Your task to perform on an android device: turn off translation in the chrome app Image 0: 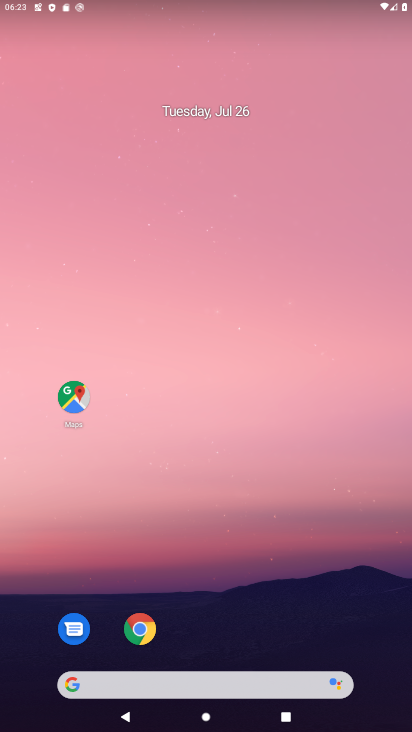
Step 0: click (143, 621)
Your task to perform on an android device: turn off translation in the chrome app Image 1: 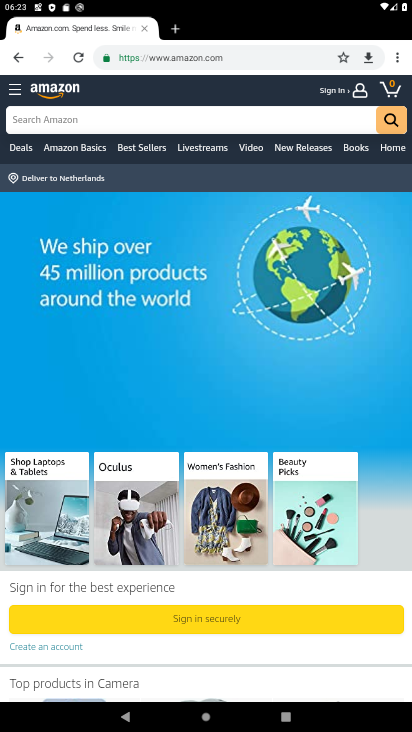
Step 1: click (396, 56)
Your task to perform on an android device: turn off translation in the chrome app Image 2: 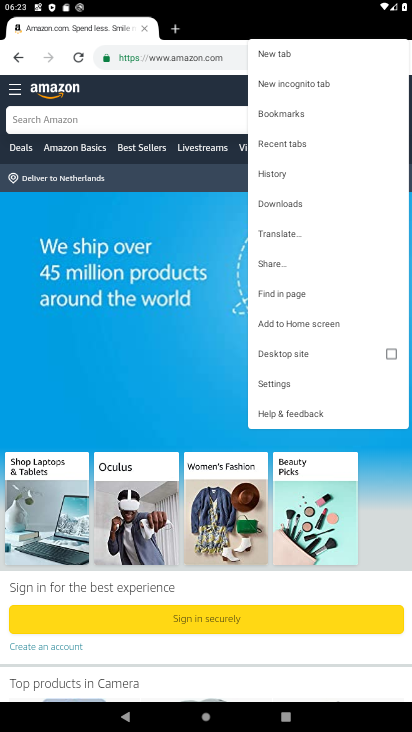
Step 2: click (278, 380)
Your task to perform on an android device: turn off translation in the chrome app Image 3: 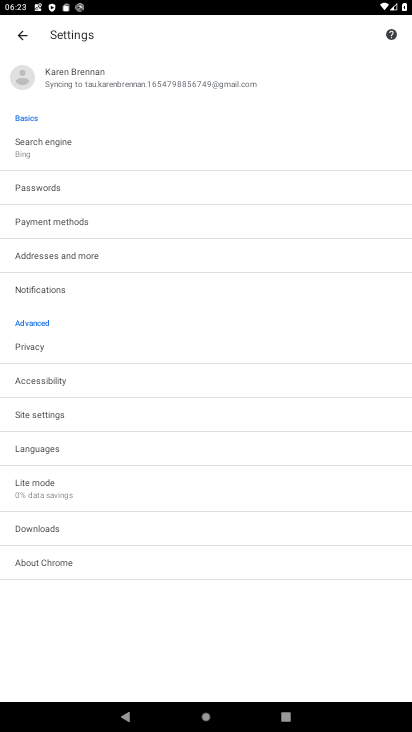
Step 3: click (41, 454)
Your task to perform on an android device: turn off translation in the chrome app Image 4: 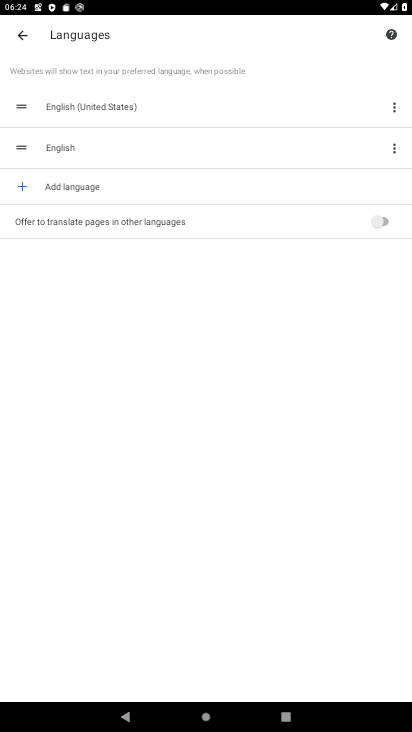
Step 4: task complete